Your task to perform on an android device: check google app version Image 0: 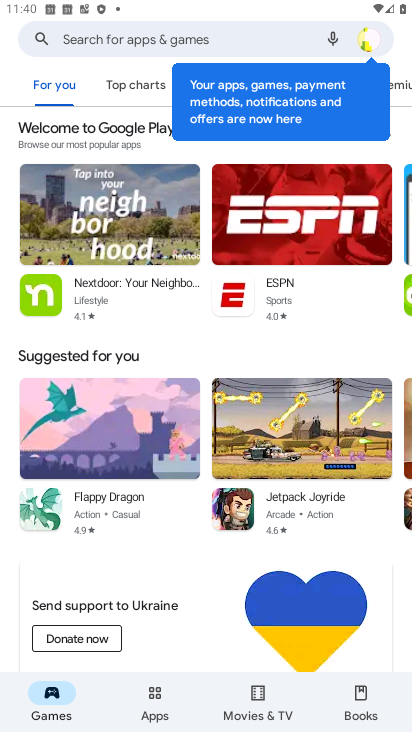
Step 0: press home button
Your task to perform on an android device: check google app version Image 1: 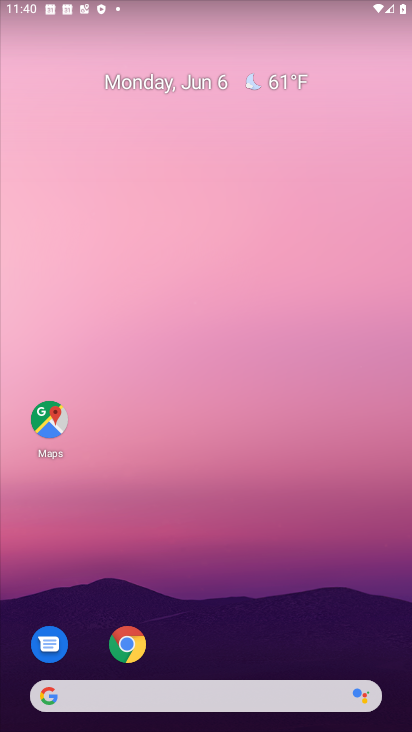
Step 1: drag from (190, 664) to (178, 220)
Your task to perform on an android device: check google app version Image 2: 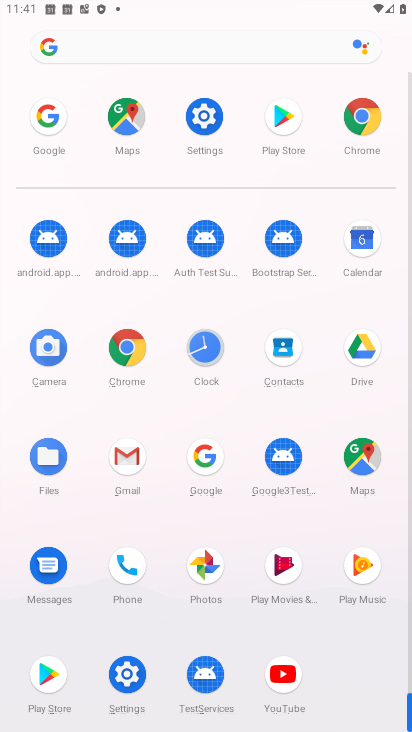
Step 2: click (196, 450)
Your task to perform on an android device: check google app version Image 3: 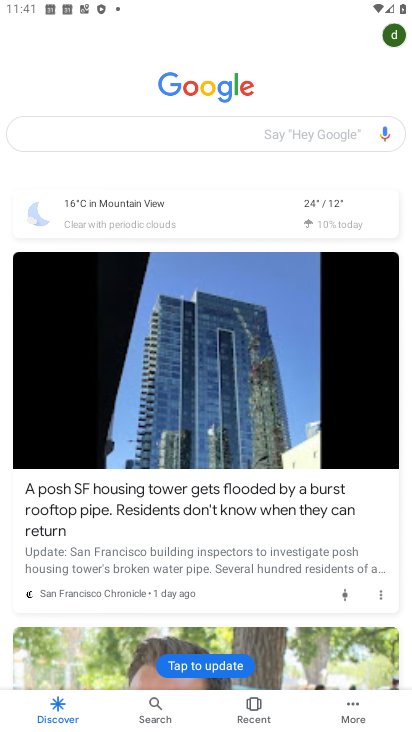
Step 3: click (365, 715)
Your task to perform on an android device: check google app version Image 4: 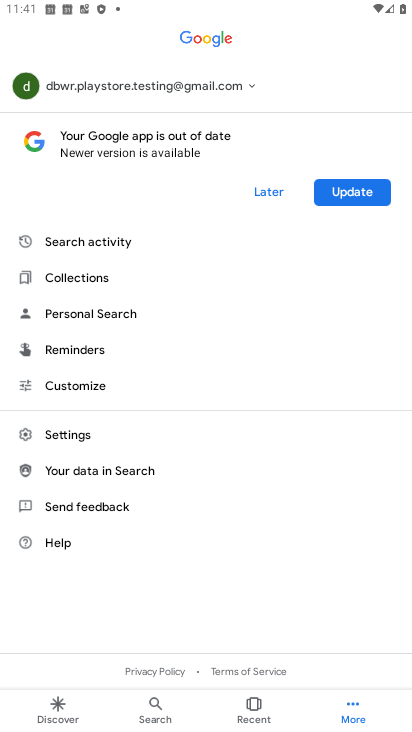
Step 4: click (87, 434)
Your task to perform on an android device: check google app version Image 5: 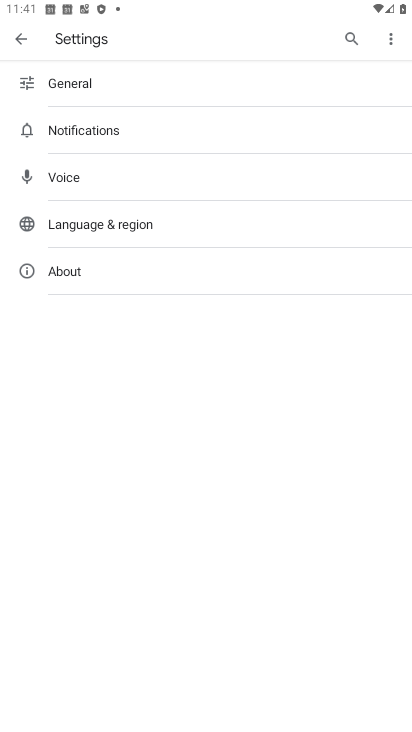
Step 5: click (102, 275)
Your task to perform on an android device: check google app version Image 6: 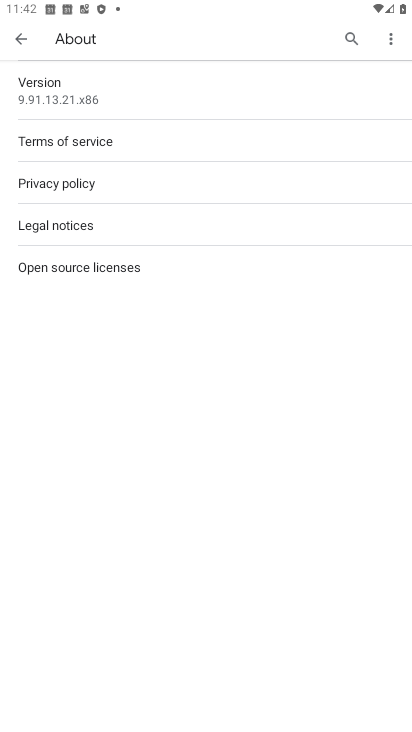
Step 6: click (83, 106)
Your task to perform on an android device: check google app version Image 7: 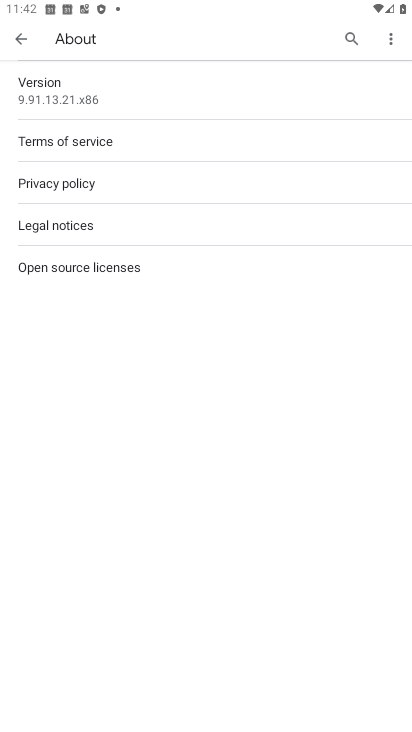
Step 7: task complete